Your task to perform on an android device: What's on my calendar tomorrow? Image 0: 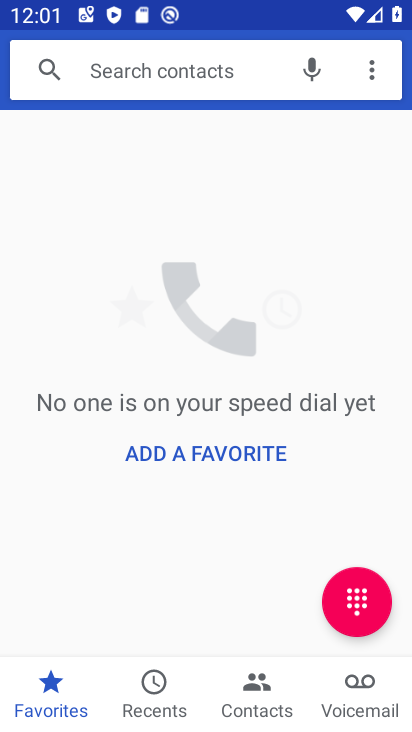
Step 0: press back button
Your task to perform on an android device: What's on my calendar tomorrow? Image 1: 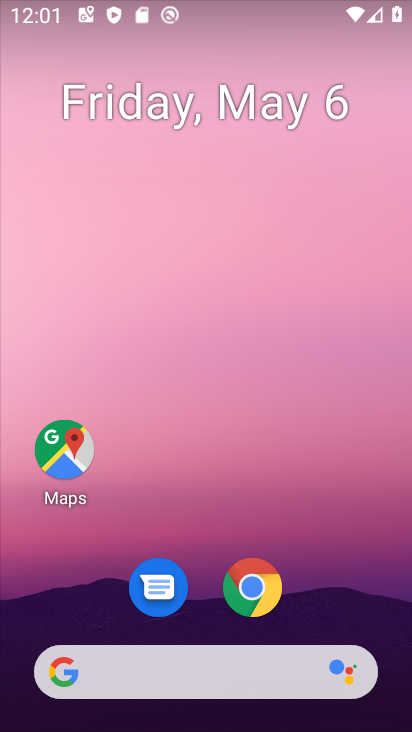
Step 1: drag from (170, 637) to (244, 60)
Your task to perform on an android device: What's on my calendar tomorrow? Image 2: 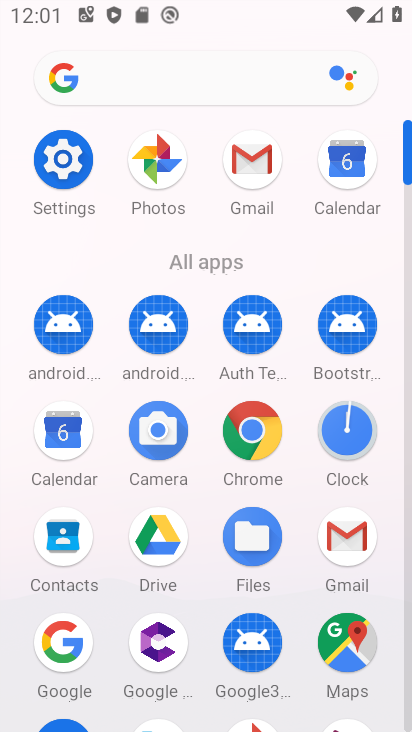
Step 2: click (59, 434)
Your task to perform on an android device: What's on my calendar tomorrow? Image 3: 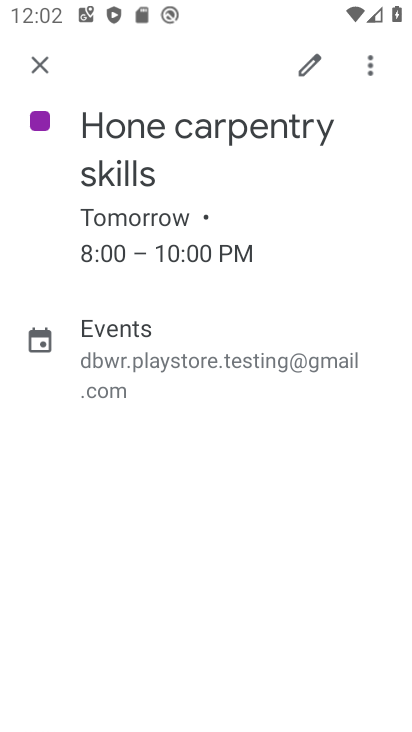
Step 3: click (29, 57)
Your task to perform on an android device: What's on my calendar tomorrow? Image 4: 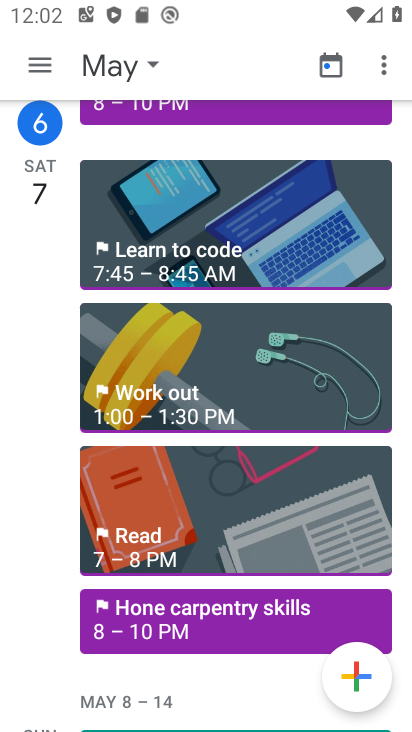
Step 4: task complete